Your task to perform on an android device: empty trash in the gmail app Image 0: 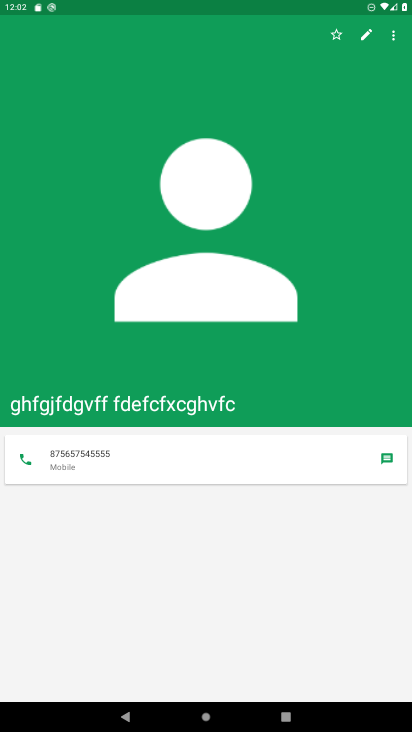
Step 0: press home button
Your task to perform on an android device: empty trash in the gmail app Image 1: 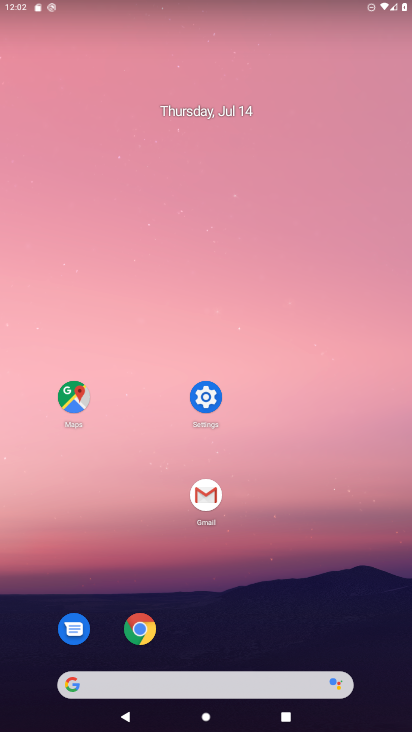
Step 1: click (207, 482)
Your task to perform on an android device: empty trash in the gmail app Image 2: 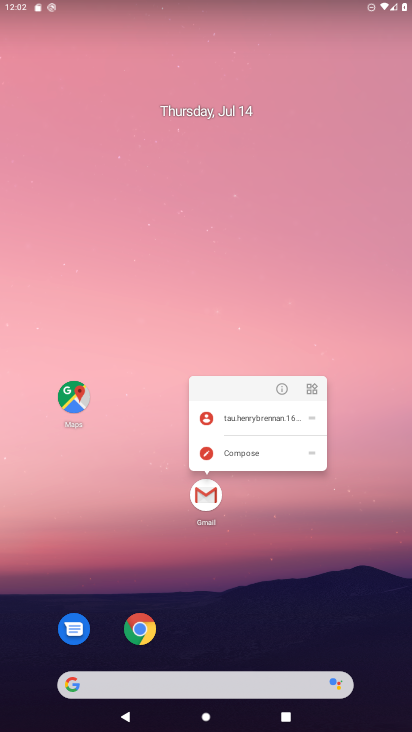
Step 2: click (197, 500)
Your task to perform on an android device: empty trash in the gmail app Image 3: 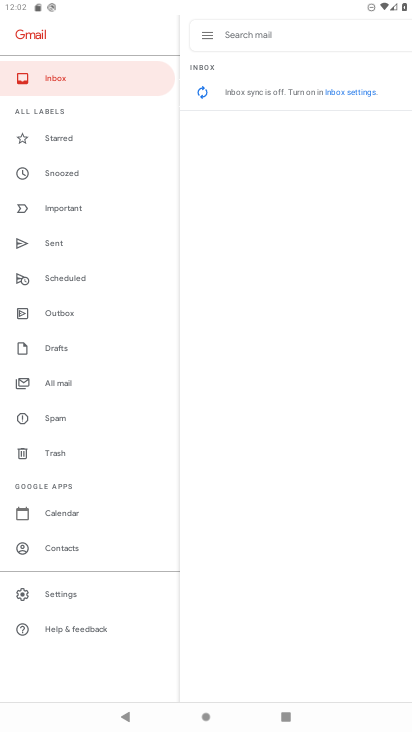
Step 3: click (38, 447)
Your task to perform on an android device: empty trash in the gmail app Image 4: 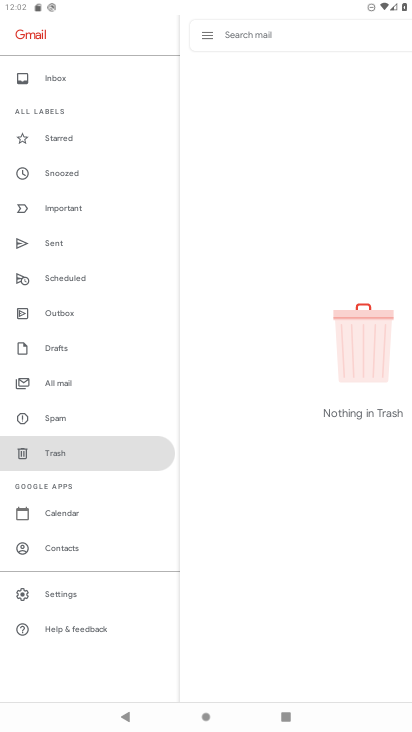
Step 4: task complete